Your task to perform on an android device: Go to Yahoo.com Image 0: 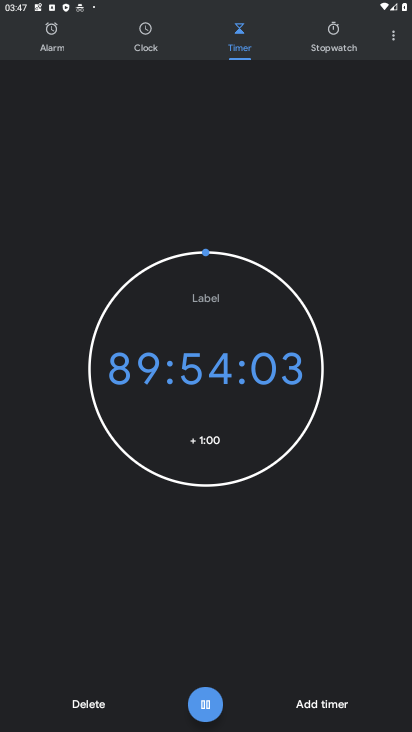
Step 0: press home button
Your task to perform on an android device: Go to Yahoo.com Image 1: 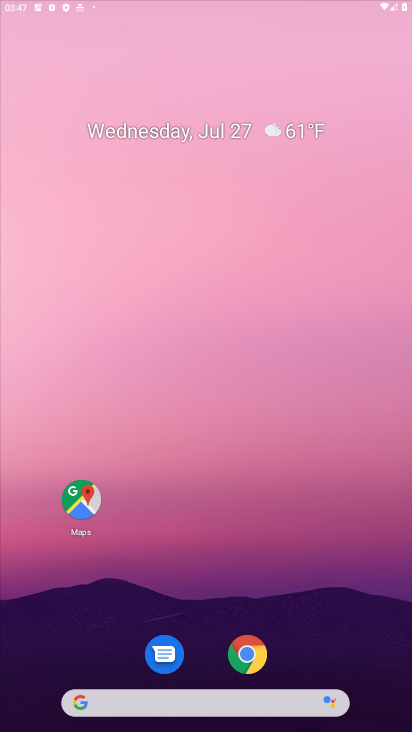
Step 1: drag from (297, 402) to (308, 119)
Your task to perform on an android device: Go to Yahoo.com Image 2: 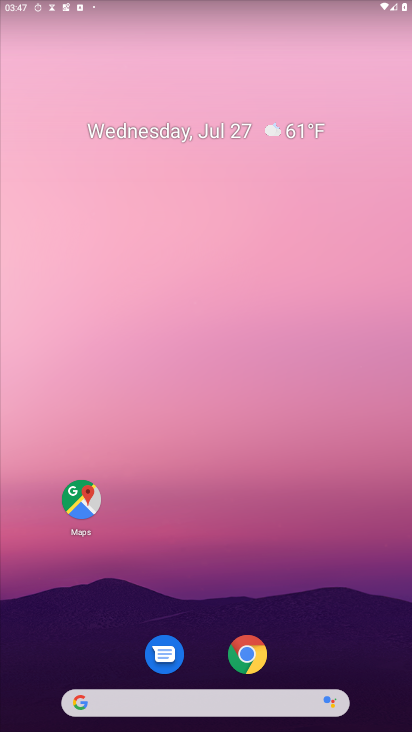
Step 2: drag from (242, 617) to (272, 40)
Your task to perform on an android device: Go to Yahoo.com Image 3: 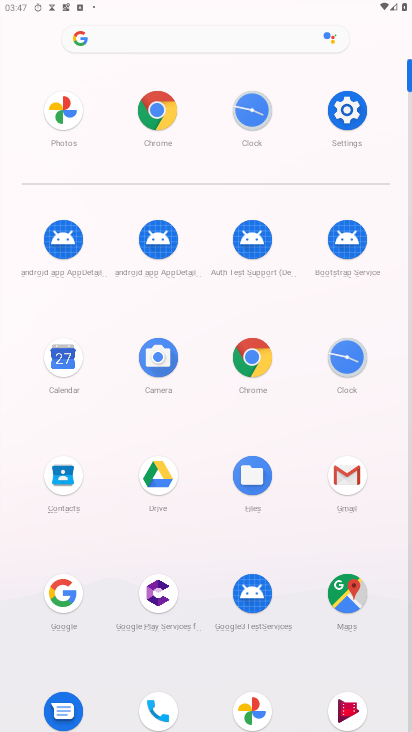
Step 3: click (231, 374)
Your task to perform on an android device: Go to Yahoo.com Image 4: 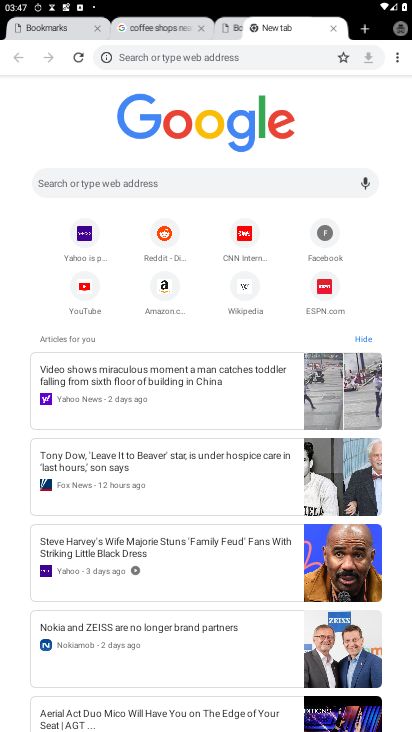
Step 4: click (99, 239)
Your task to perform on an android device: Go to Yahoo.com Image 5: 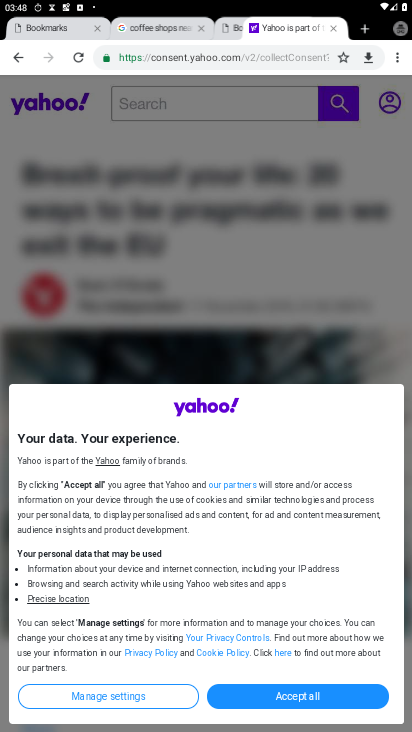
Step 5: task complete